Your task to perform on an android device: move an email to a new category in the gmail app Image 0: 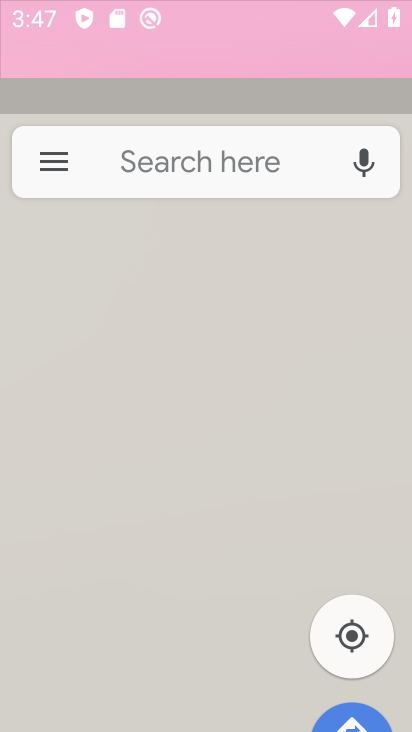
Step 0: click (210, 65)
Your task to perform on an android device: move an email to a new category in the gmail app Image 1: 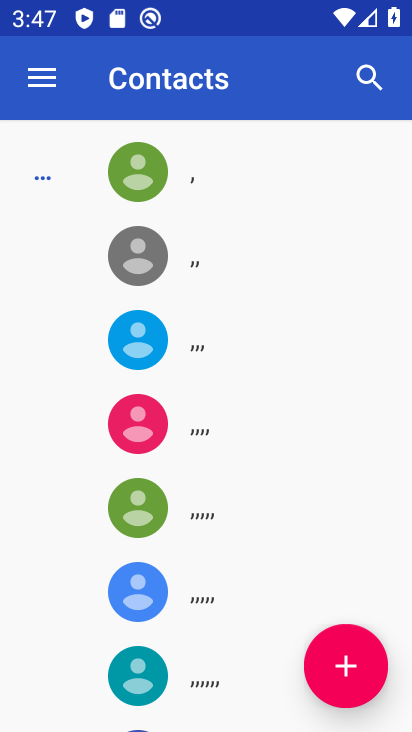
Step 1: press back button
Your task to perform on an android device: move an email to a new category in the gmail app Image 2: 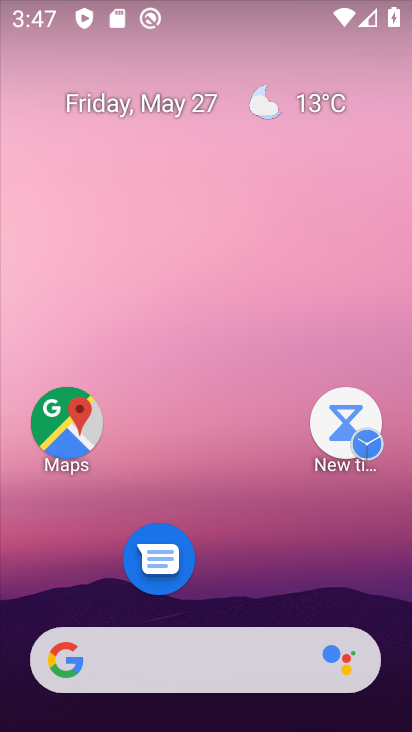
Step 2: drag from (257, 680) to (90, 40)
Your task to perform on an android device: move an email to a new category in the gmail app Image 3: 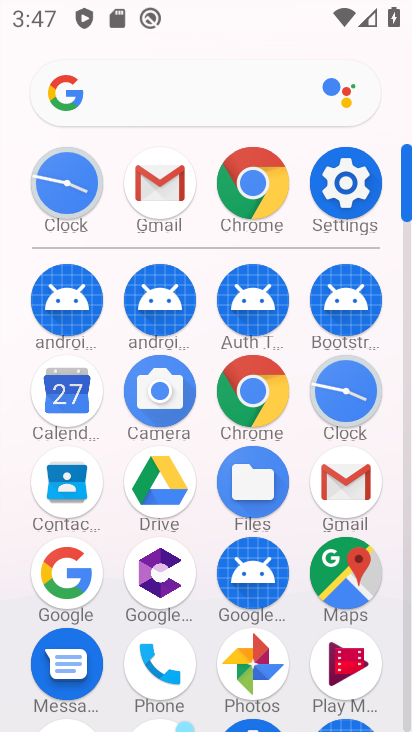
Step 3: drag from (227, 618) to (114, 57)
Your task to perform on an android device: move an email to a new category in the gmail app Image 4: 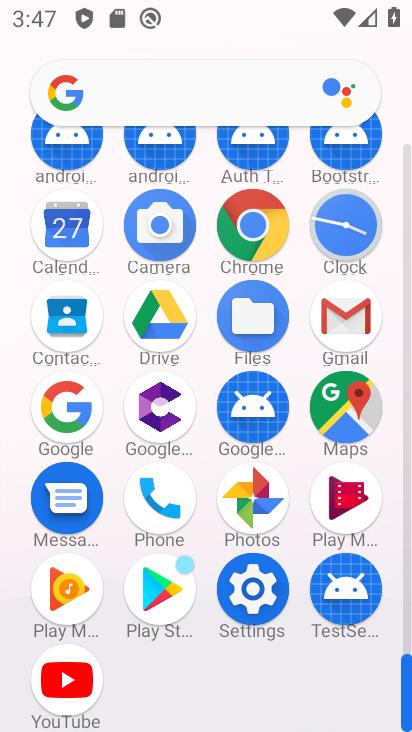
Step 4: drag from (147, 141) to (138, 73)
Your task to perform on an android device: move an email to a new category in the gmail app Image 5: 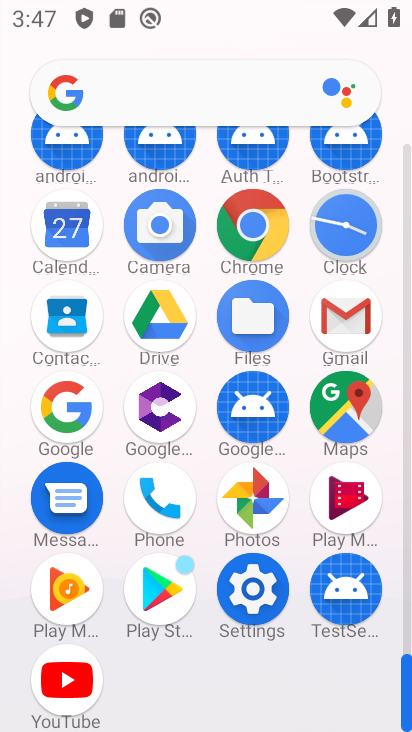
Step 5: click (325, 325)
Your task to perform on an android device: move an email to a new category in the gmail app Image 6: 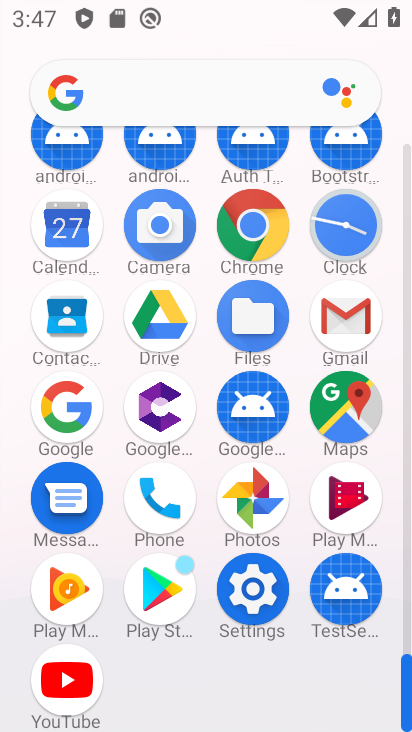
Step 6: click (328, 324)
Your task to perform on an android device: move an email to a new category in the gmail app Image 7: 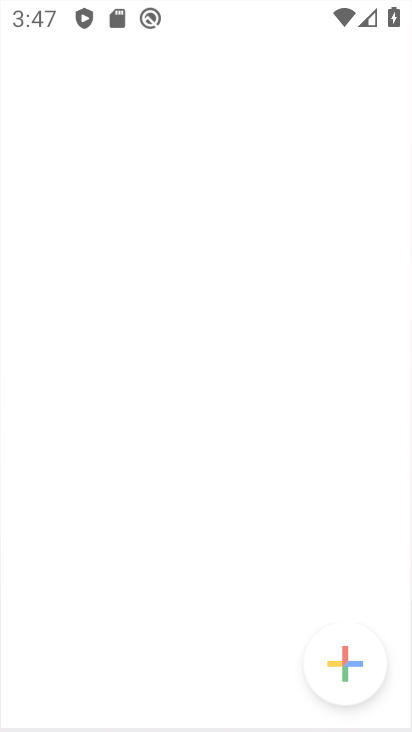
Step 7: click (331, 322)
Your task to perform on an android device: move an email to a new category in the gmail app Image 8: 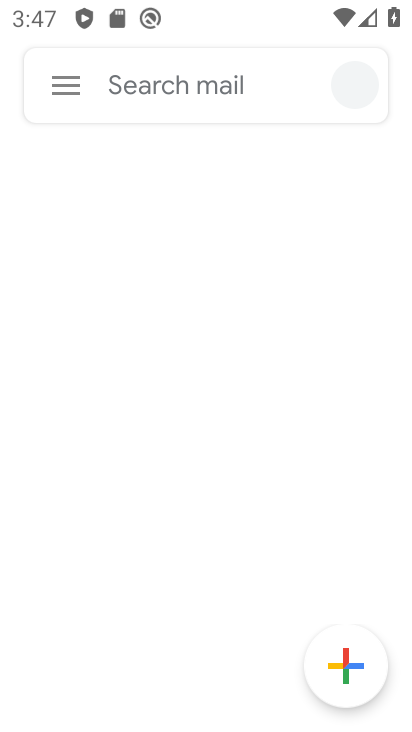
Step 8: click (330, 319)
Your task to perform on an android device: move an email to a new category in the gmail app Image 9: 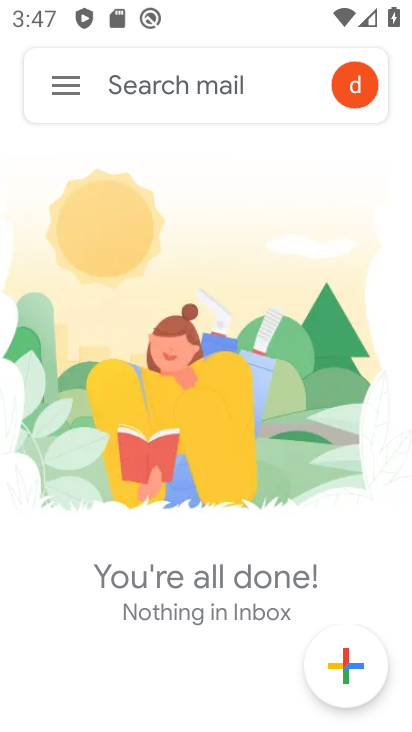
Step 9: click (330, 319)
Your task to perform on an android device: move an email to a new category in the gmail app Image 10: 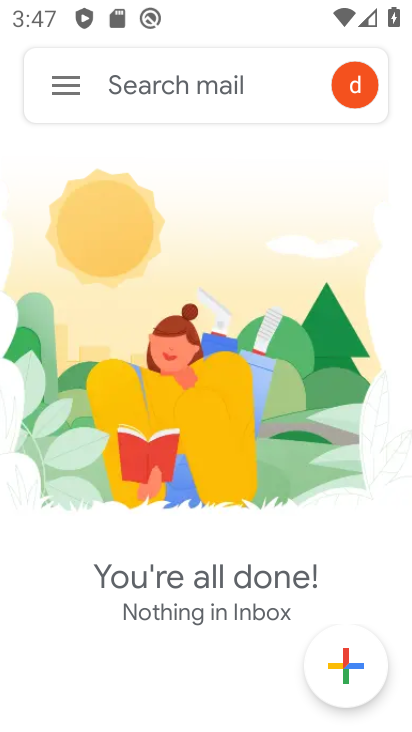
Step 10: drag from (265, 714) to (147, 188)
Your task to perform on an android device: move an email to a new category in the gmail app Image 11: 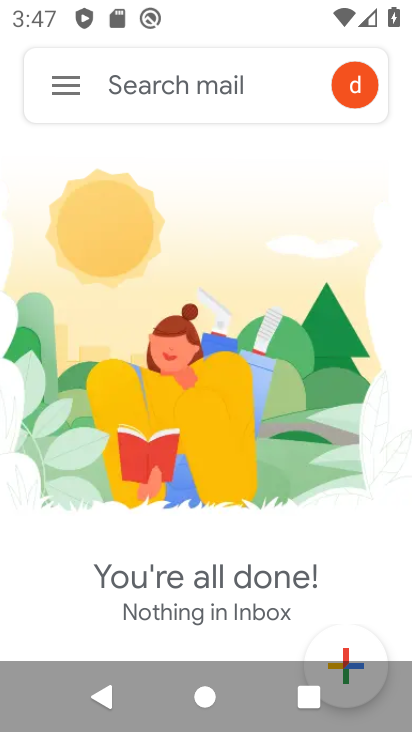
Step 11: drag from (243, 531) to (159, 249)
Your task to perform on an android device: move an email to a new category in the gmail app Image 12: 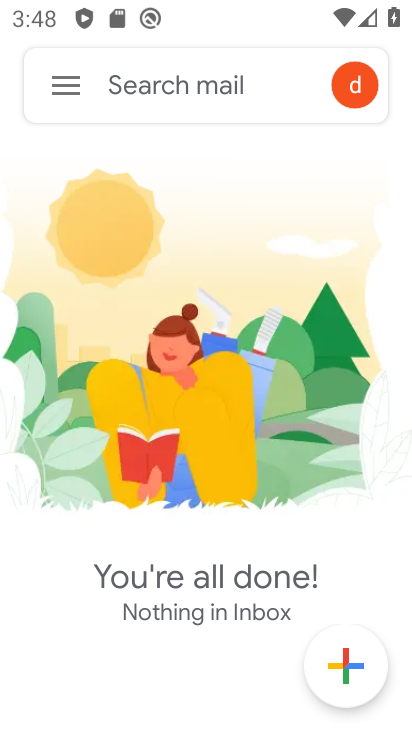
Step 12: press back button
Your task to perform on an android device: move an email to a new category in the gmail app Image 13: 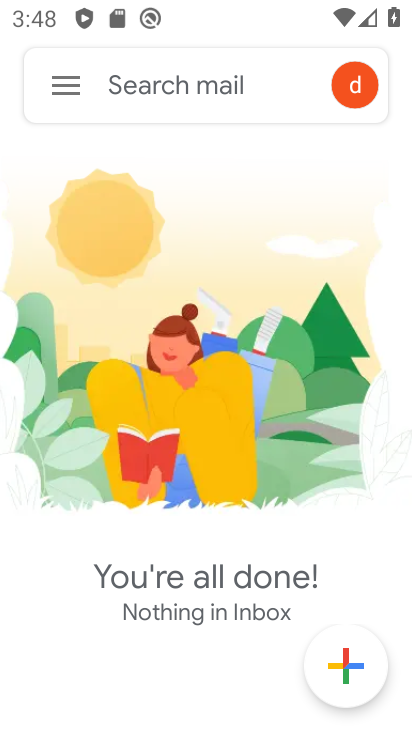
Step 13: press back button
Your task to perform on an android device: move an email to a new category in the gmail app Image 14: 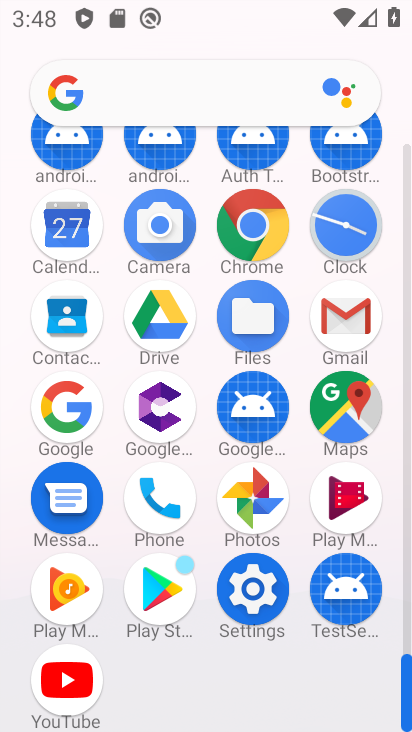
Step 14: press back button
Your task to perform on an android device: move an email to a new category in the gmail app Image 15: 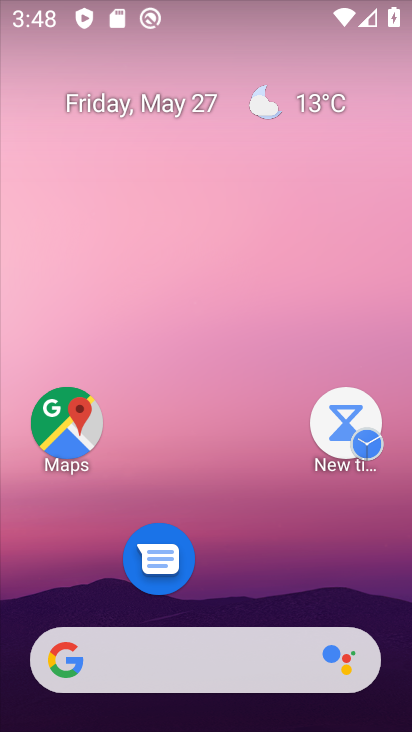
Step 15: drag from (276, 569) to (228, 251)
Your task to perform on an android device: move an email to a new category in the gmail app Image 16: 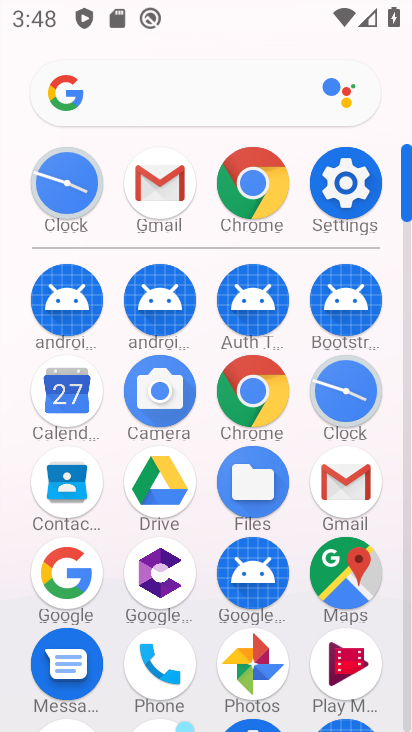
Step 16: click (342, 468)
Your task to perform on an android device: move an email to a new category in the gmail app Image 17: 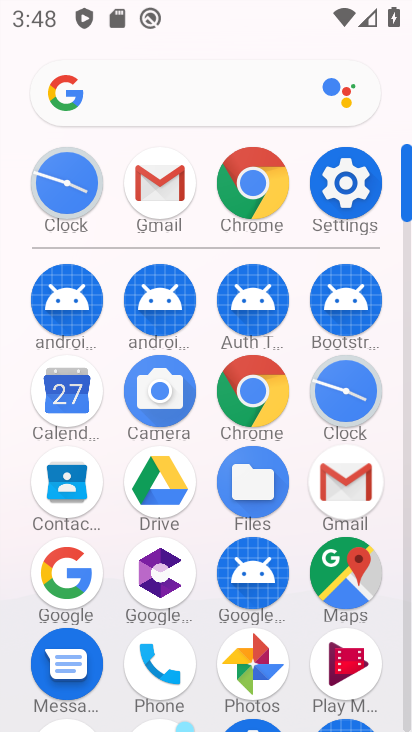
Step 17: click (348, 479)
Your task to perform on an android device: move an email to a new category in the gmail app Image 18: 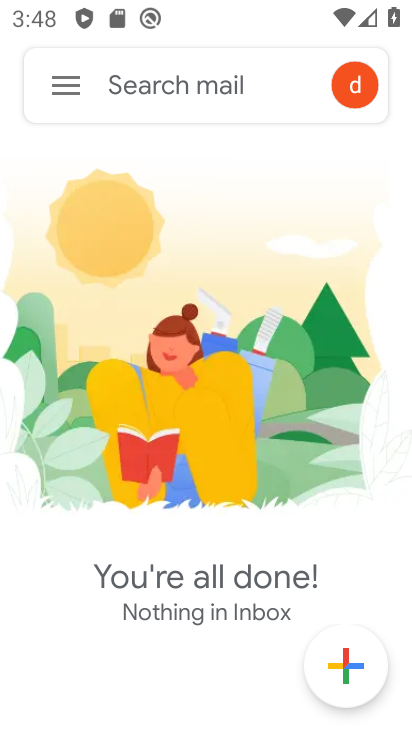
Step 18: drag from (204, 647) to (124, 169)
Your task to perform on an android device: move an email to a new category in the gmail app Image 19: 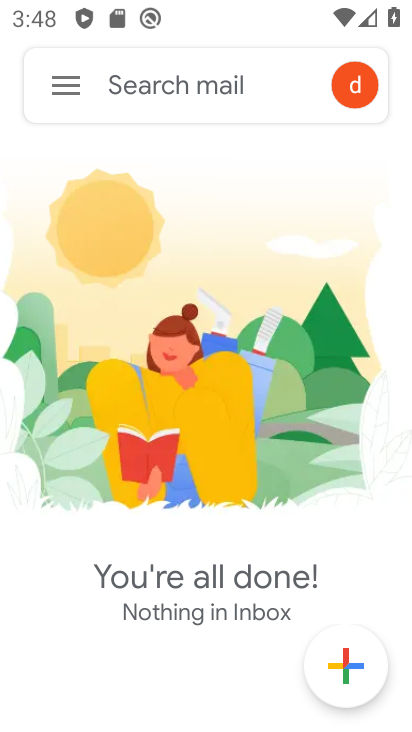
Step 19: drag from (201, 472) to (104, 159)
Your task to perform on an android device: move an email to a new category in the gmail app Image 20: 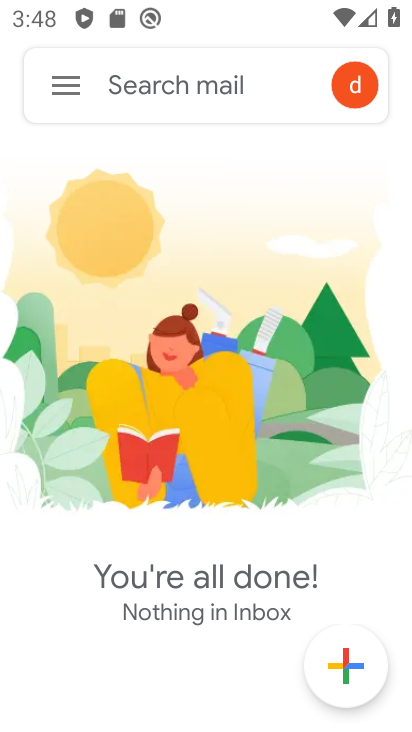
Step 20: drag from (157, 269) to (72, 8)
Your task to perform on an android device: move an email to a new category in the gmail app Image 21: 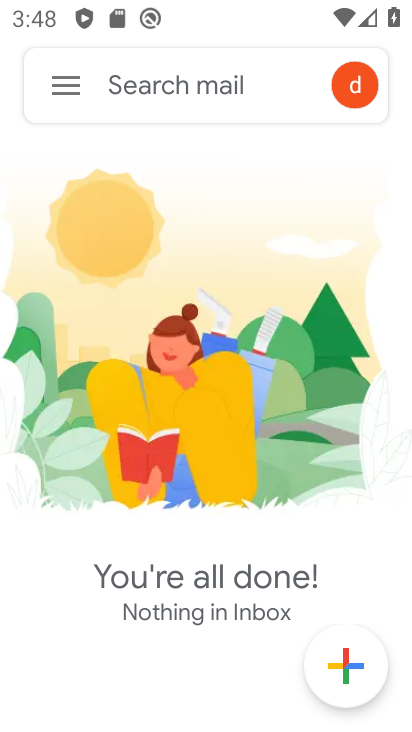
Step 21: drag from (168, 332) to (78, 38)
Your task to perform on an android device: move an email to a new category in the gmail app Image 22: 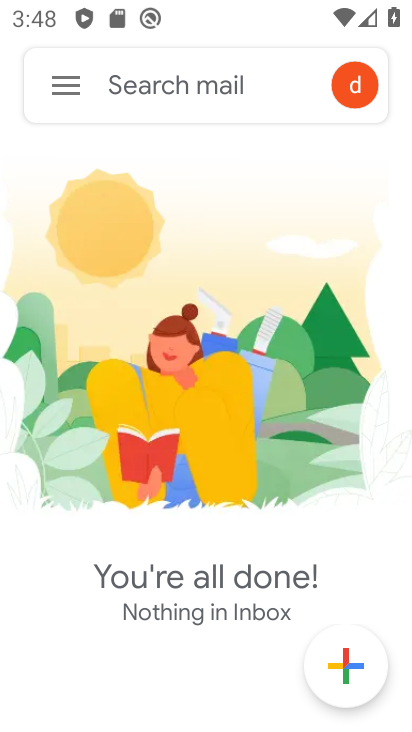
Step 22: drag from (143, 266) to (83, 4)
Your task to perform on an android device: move an email to a new category in the gmail app Image 23: 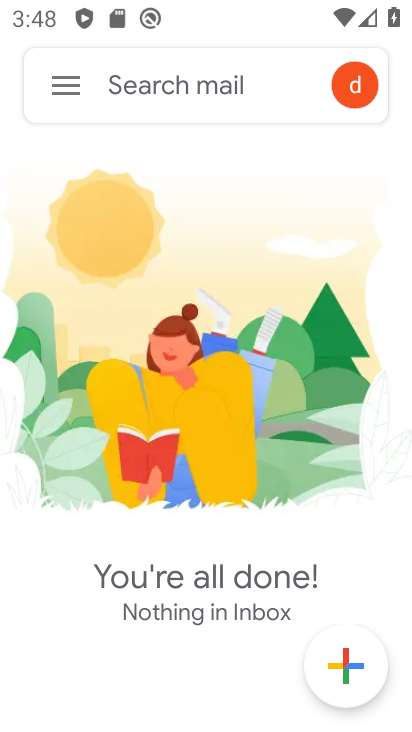
Step 23: click (98, 76)
Your task to perform on an android device: move an email to a new category in the gmail app Image 24: 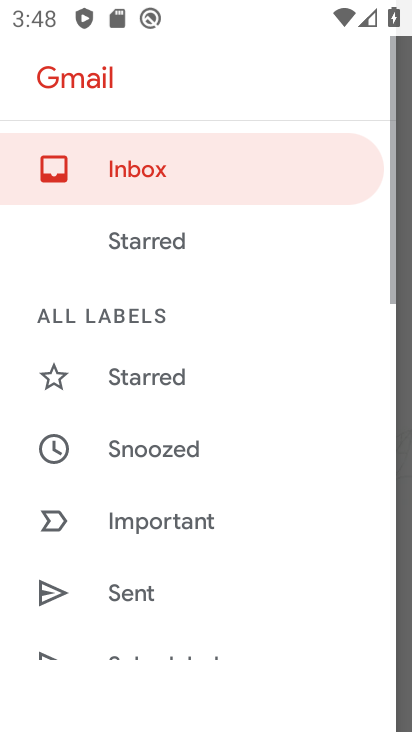
Step 24: drag from (151, 488) to (1, 68)
Your task to perform on an android device: move an email to a new category in the gmail app Image 25: 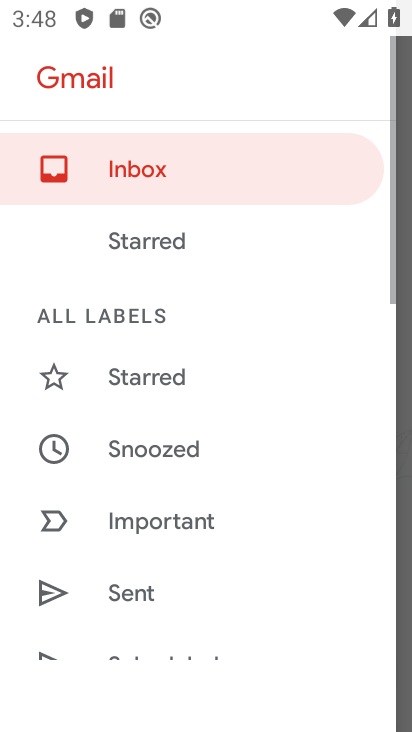
Step 25: drag from (146, 384) to (82, 82)
Your task to perform on an android device: move an email to a new category in the gmail app Image 26: 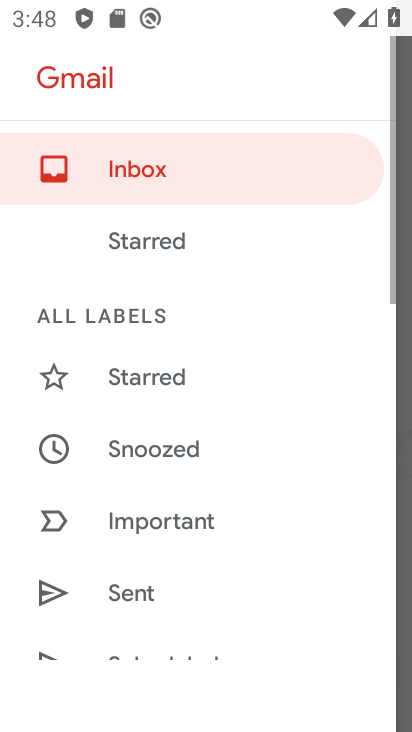
Step 26: drag from (177, 346) to (160, 50)
Your task to perform on an android device: move an email to a new category in the gmail app Image 27: 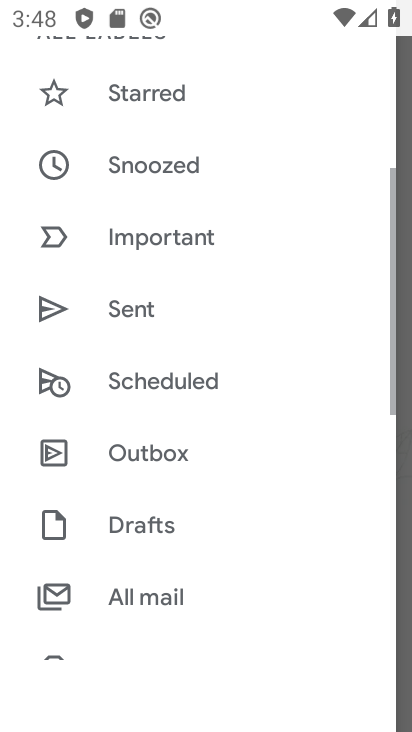
Step 27: drag from (254, 302) to (285, 126)
Your task to perform on an android device: move an email to a new category in the gmail app Image 28: 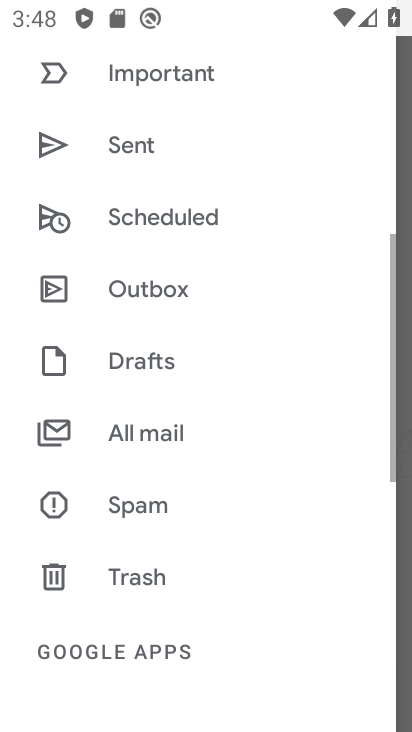
Step 28: drag from (231, 504) to (258, 132)
Your task to perform on an android device: move an email to a new category in the gmail app Image 29: 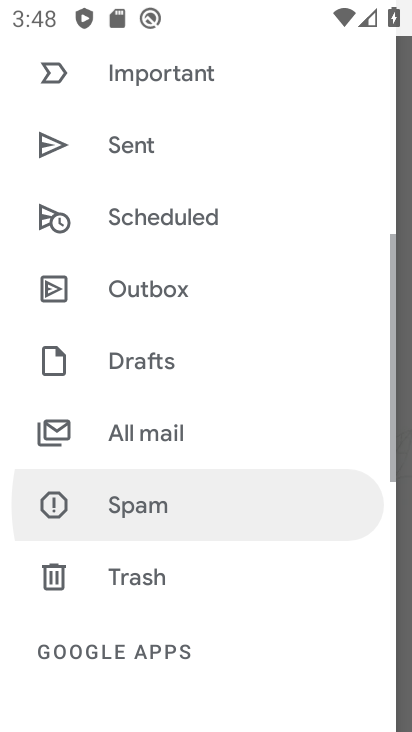
Step 29: drag from (215, 472) to (230, 110)
Your task to perform on an android device: move an email to a new category in the gmail app Image 30: 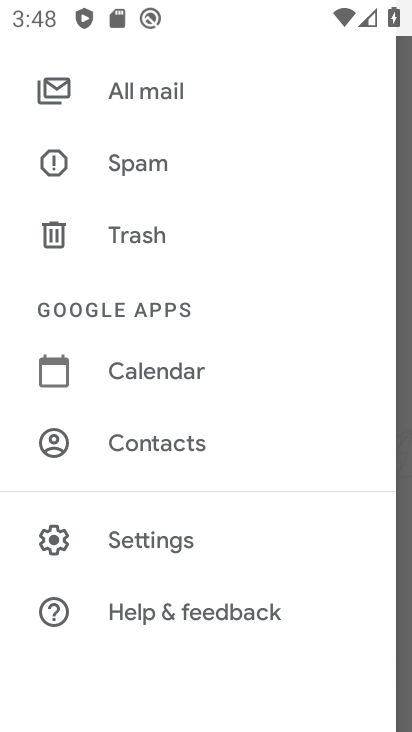
Step 30: click (143, 92)
Your task to perform on an android device: move an email to a new category in the gmail app Image 31: 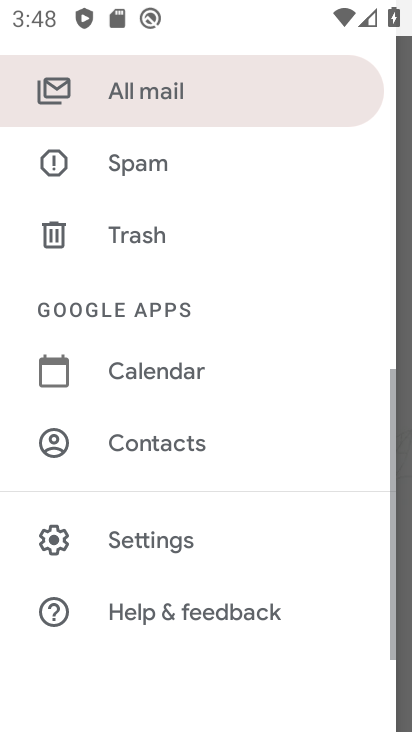
Step 31: click (143, 92)
Your task to perform on an android device: move an email to a new category in the gmail app Image 32: 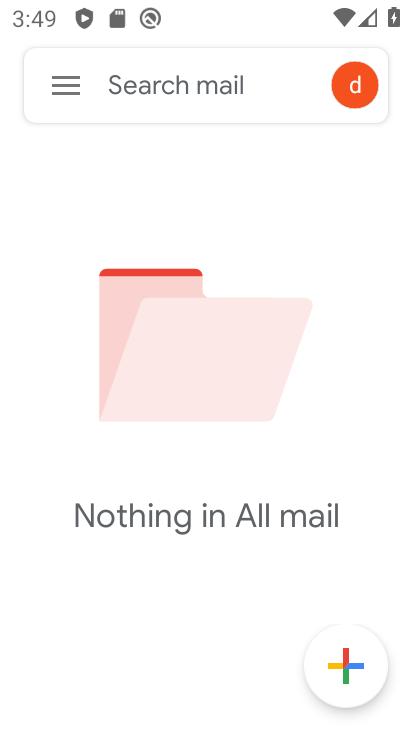
Step 32: click (142, 93)
Your task to perform on an android device: move an email to a new category in the gmail app Image 33: 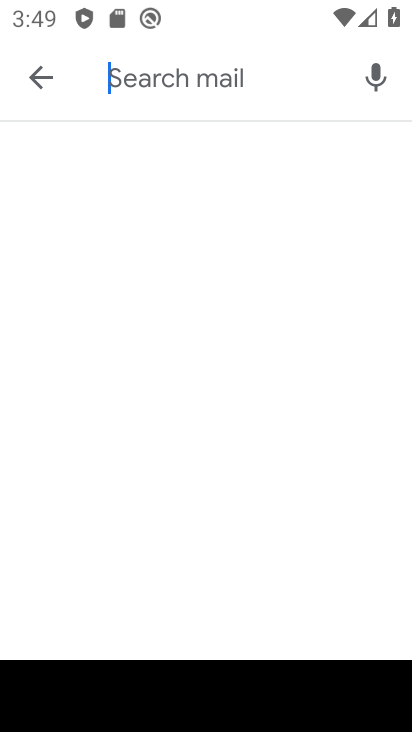
Step 33: task complete